Your task to perform on an android device: Go to Google Image 0: 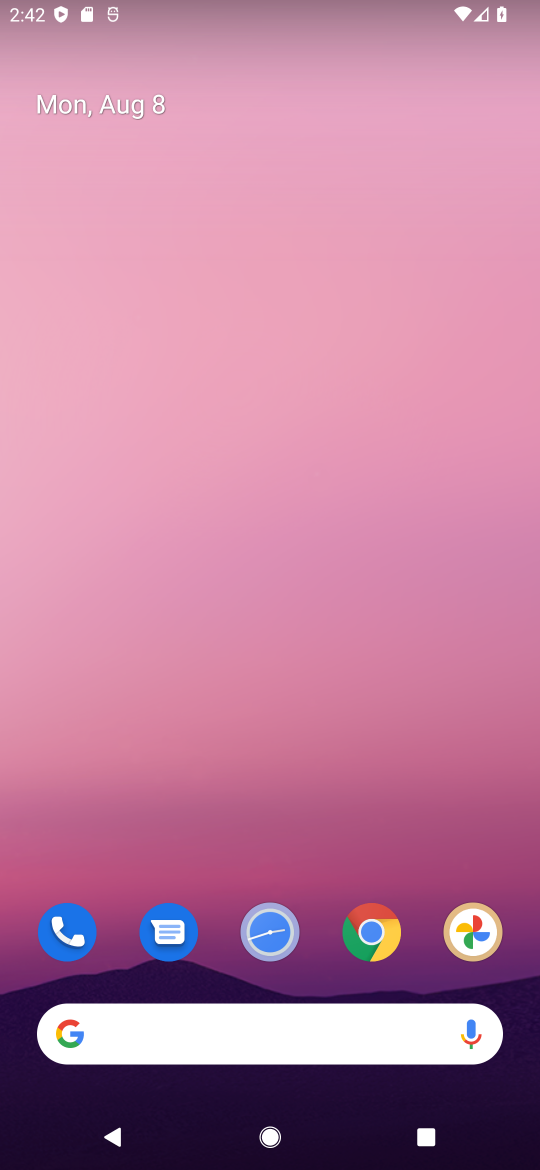
Step 0: drag from (412, 700) to (484, 0)
Your task to perform on an android device: Go to Google Image 1: 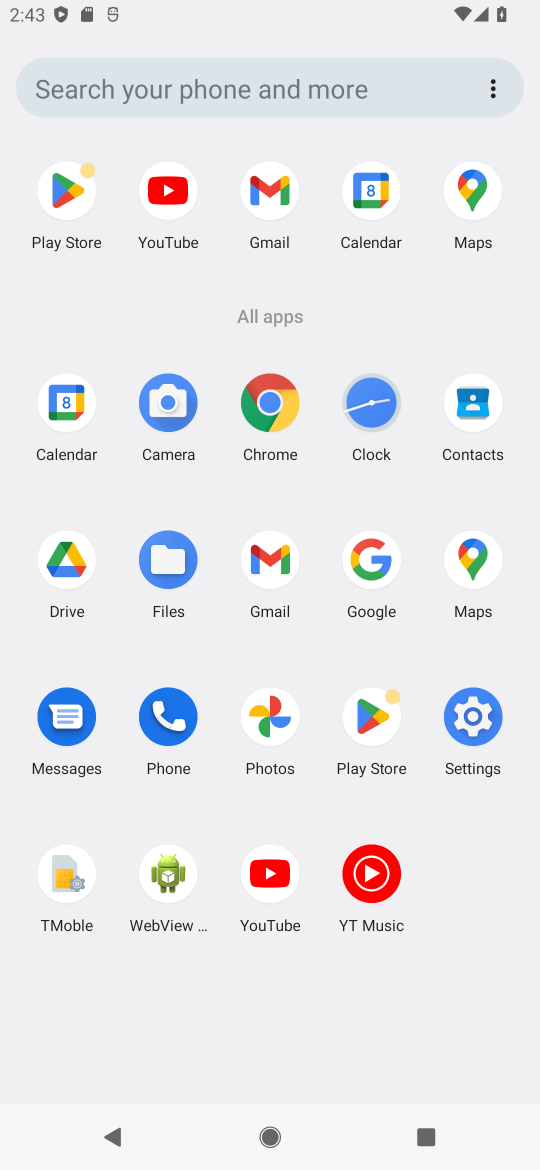
Step 1: click (384, 570)
Your task to perform on an android device: Go to Google Image 2: 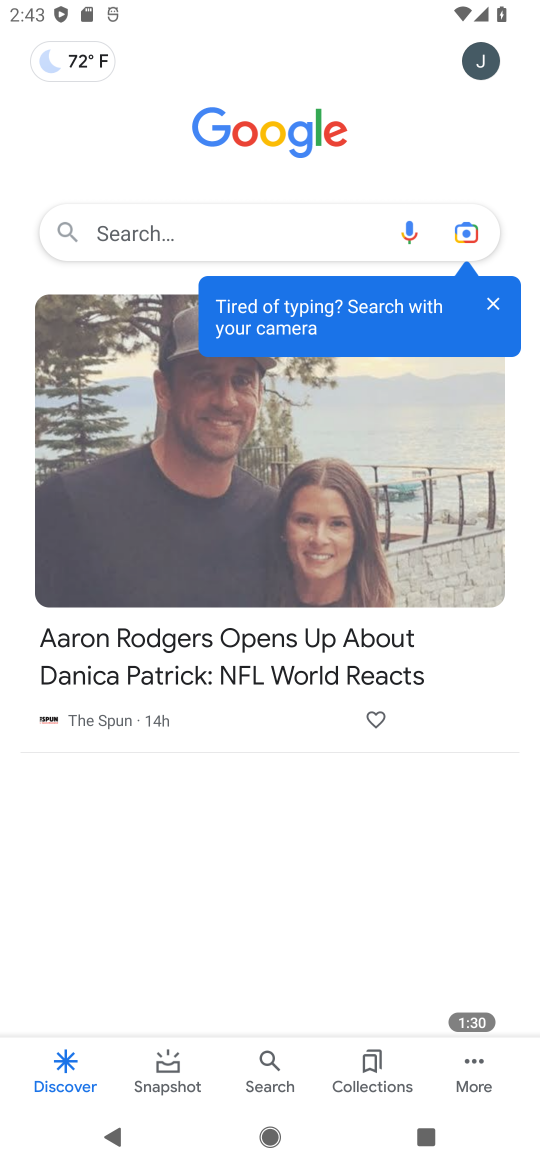
Step 2: task complete